Your task to perform on an android device: add a contact Image 0: 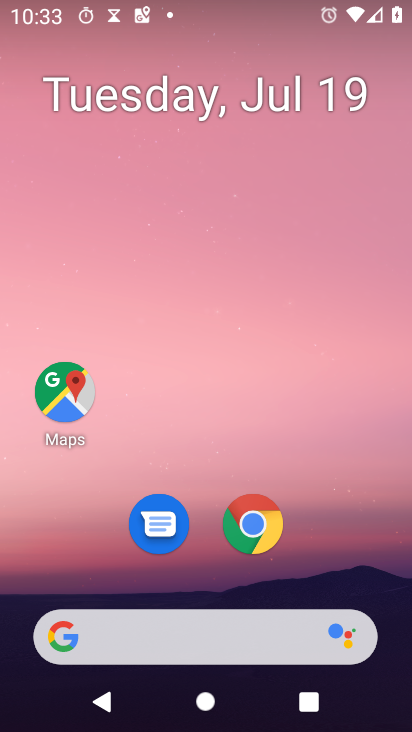
Step 0: press home button
Your task to perform on an android device: add a contact Image 1: 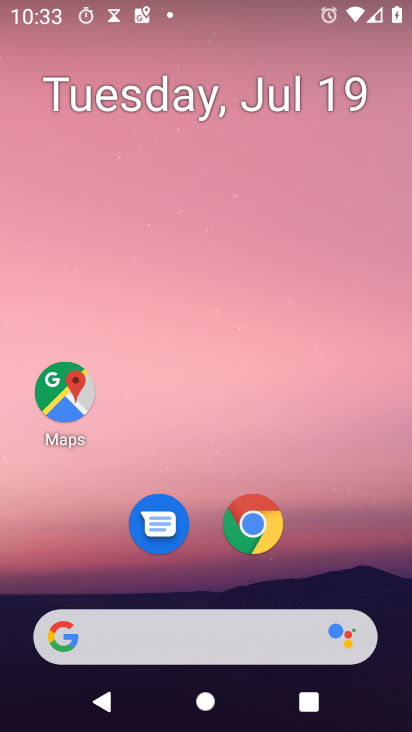
Step 1: drag from (179, 644) to (305, 144)
Your task to perform on an android device: add a contact Image 2: 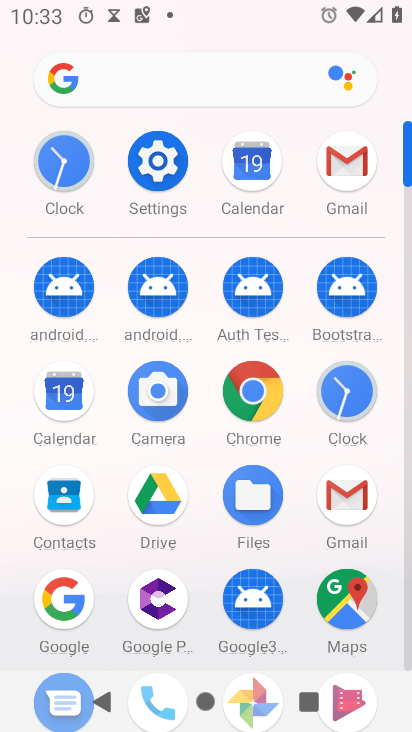
Step 2: click (61, 492)
Your task to perform on an android device: add a contact Image 3: 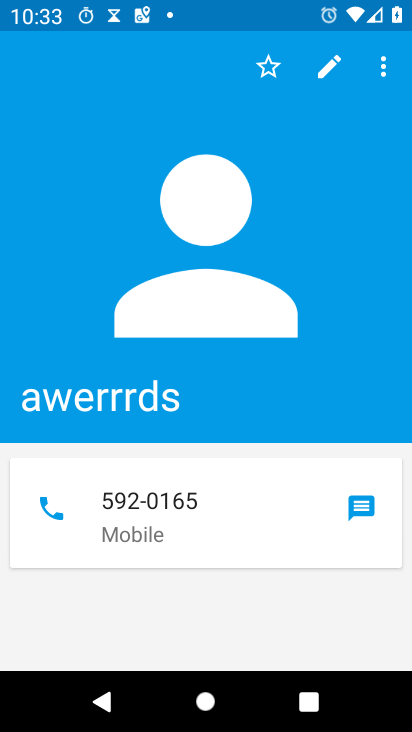
Step 3: press back button
Your task to perform on an android device: add a contact Image 4: 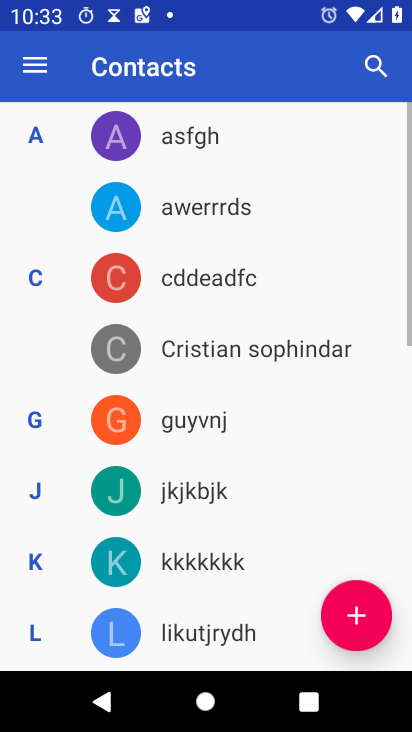
Step 4: click (354, 617)
Your task to perform on an android device: add a contact Image 5: 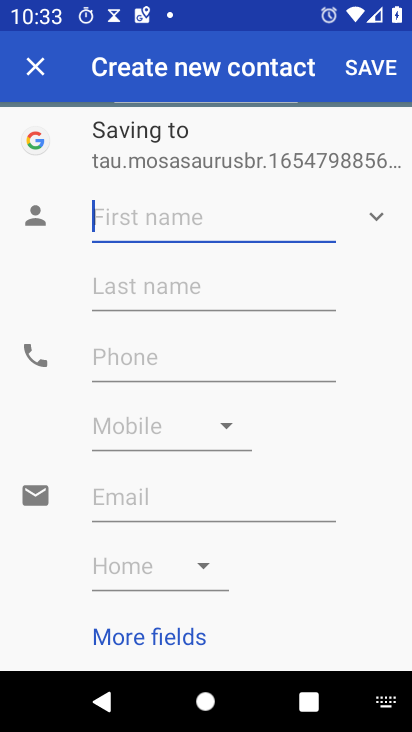
Step 5: type "vuuthhgjj"
Your task to perform on an android device: add a contact Image 6: 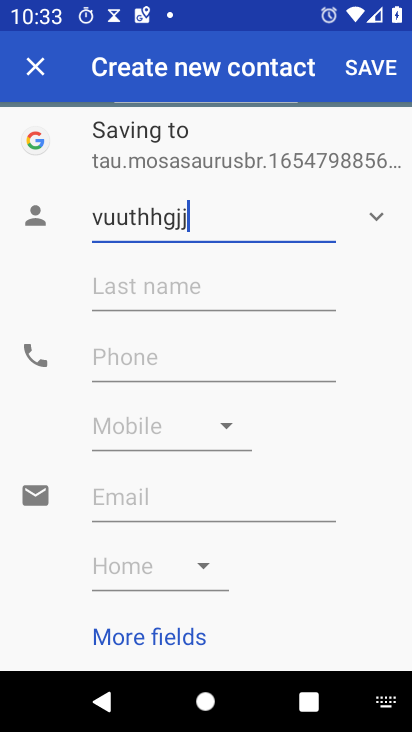
Step 6: click (126, 356)
Your task to perform on an android device: add a contact Image 7: 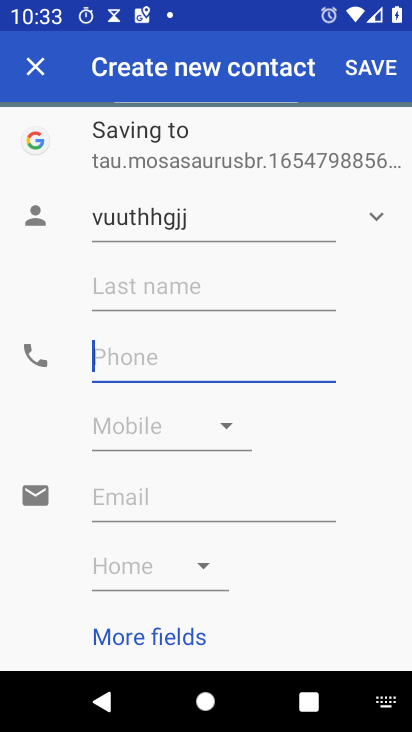
Step 7: type "938760098"
Your task to perform on an android device: add a contact Image 8: 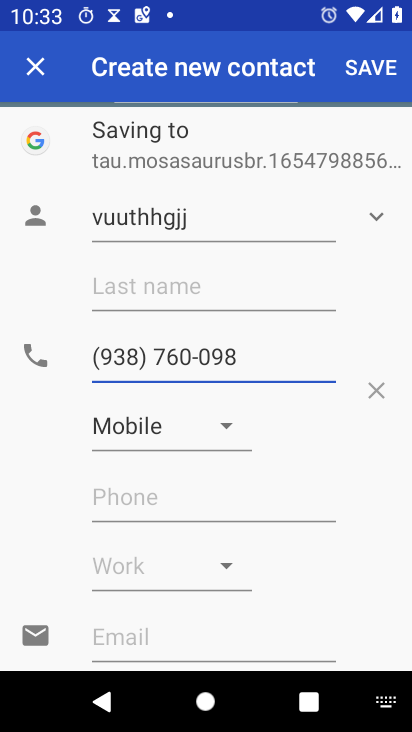
Step 8: click (372, 68)
Your task to perform on an android device: add a contact Image 9: 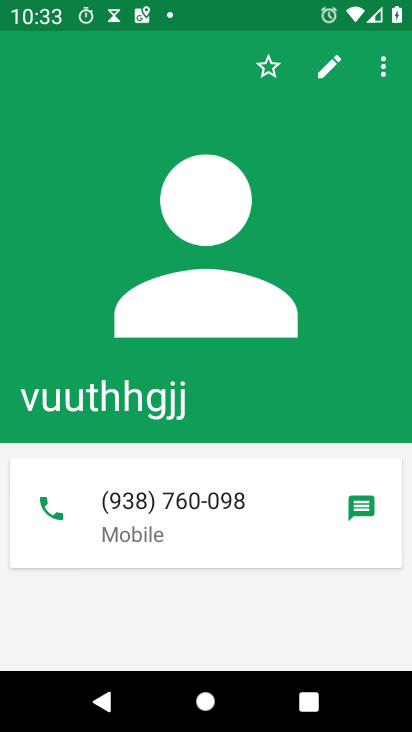
Step 9: task complete